Your task to perform on an android device: turn off location history Image 0: 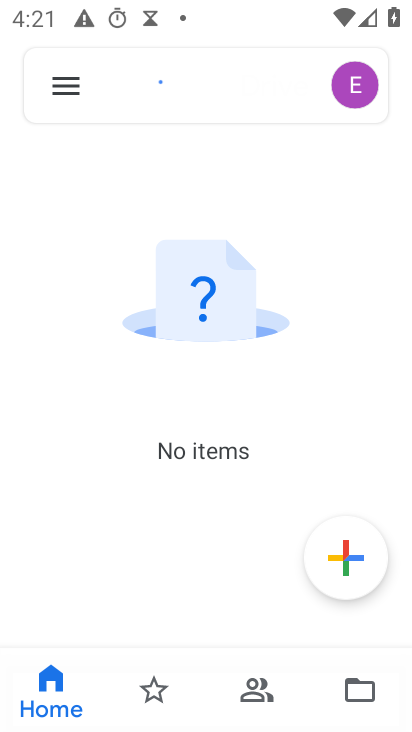
Step 0: press back button
Your task to perform on an android device: turn off location history Image 1: 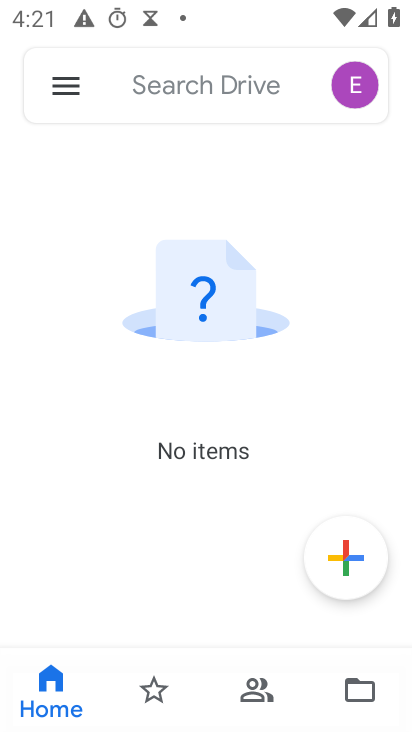
Step 1: press back button
Your task to perform on an android device: turn off location history Image 2: 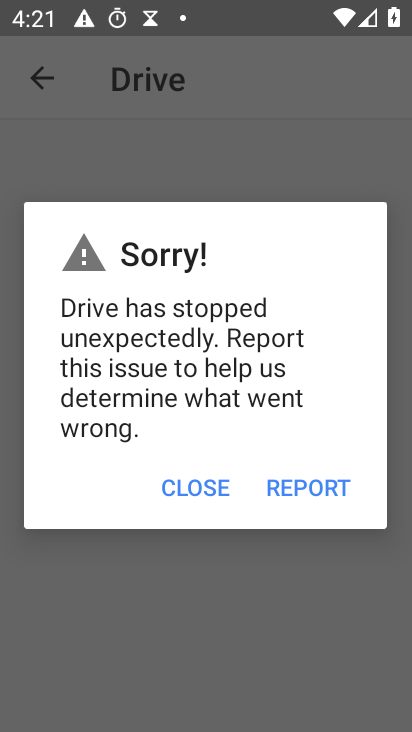
Step 2: click (207, 488)
Your task to perform on an android device: turn off location history Image 3: 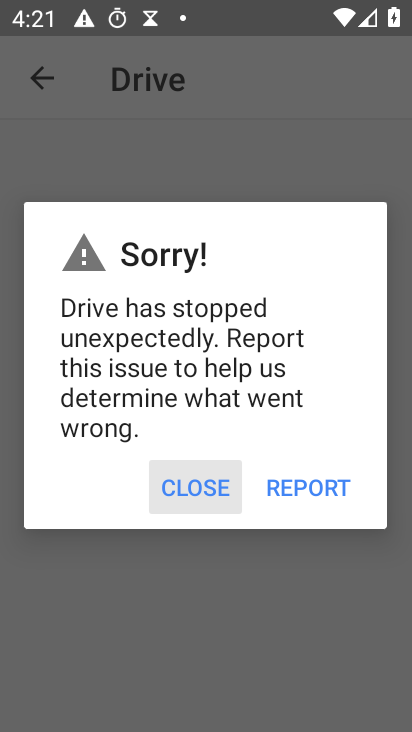
Step 3: click (203, 491)
Your task to perform on an android device: turn off location history Image 4: 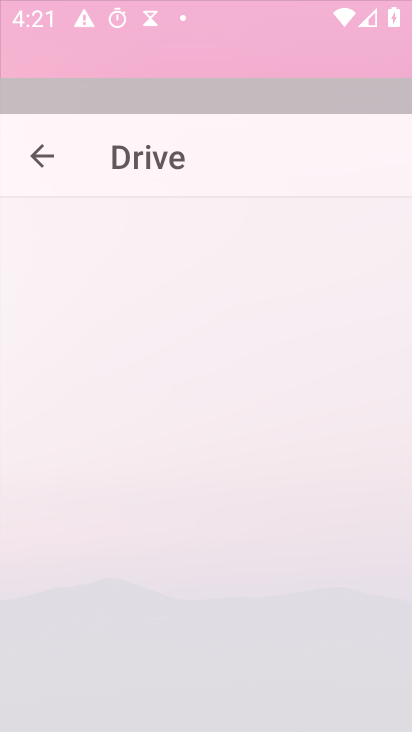
Step 4: click (207, 488)
Your task to perform on an android device: turn off location history Image 5: 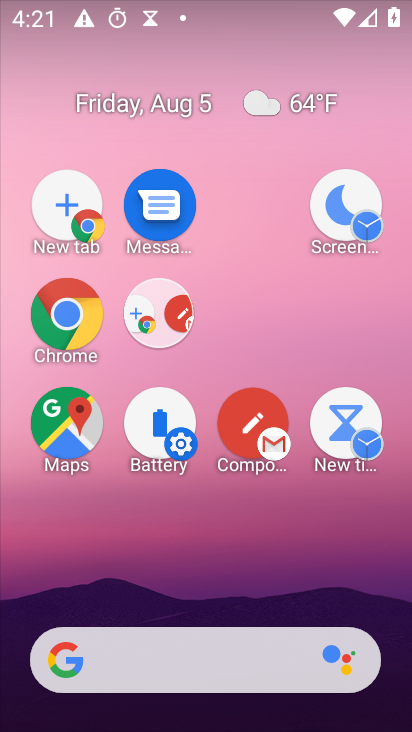
Step 5: drag from (209, 536) to (159, 102)
Your task to perform on an android device: turn off location history Image 6: 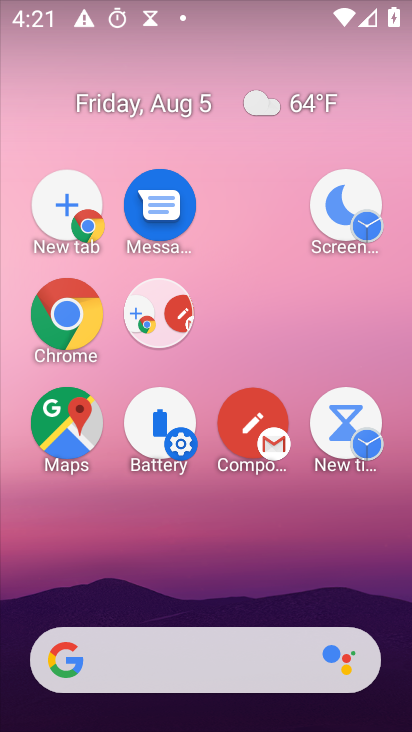
Step 6: drag from (242, 499) to (187, 131)
Your task to perform on an android device: turn off location history Image 7: 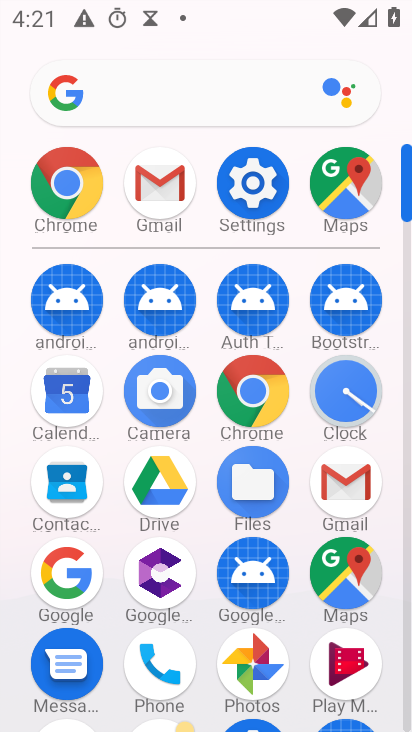
Step 7: click (243, 188)
Your task to perform on an android device: turn off location history Image 8: 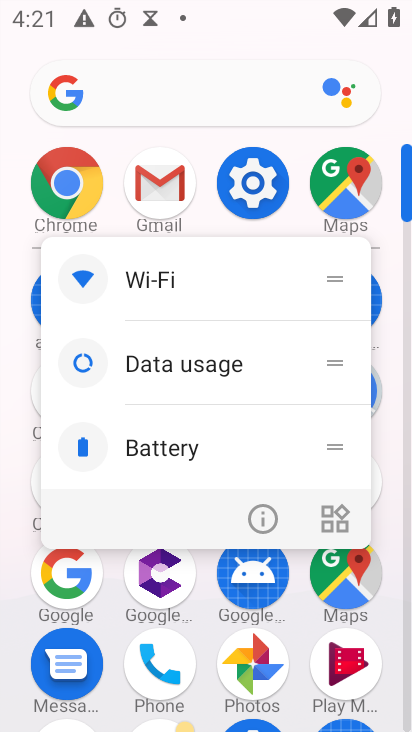
Step 8: click (248, 191)
Your task to perform on an android device: turn off location history Image 9: 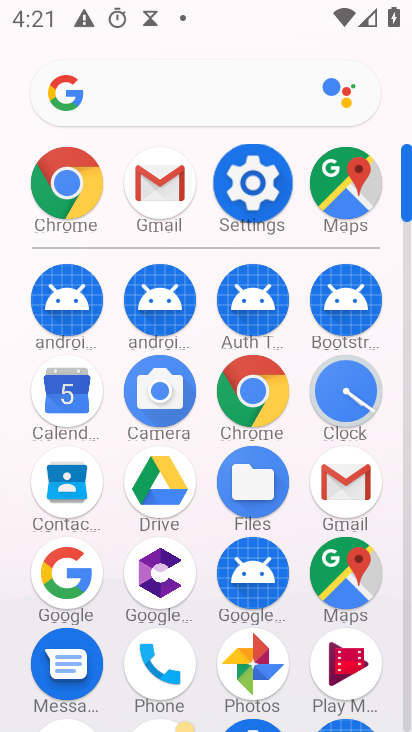
Step 9: click (248, 191)
Your task to perform on an android device: turn off location history Image 10: 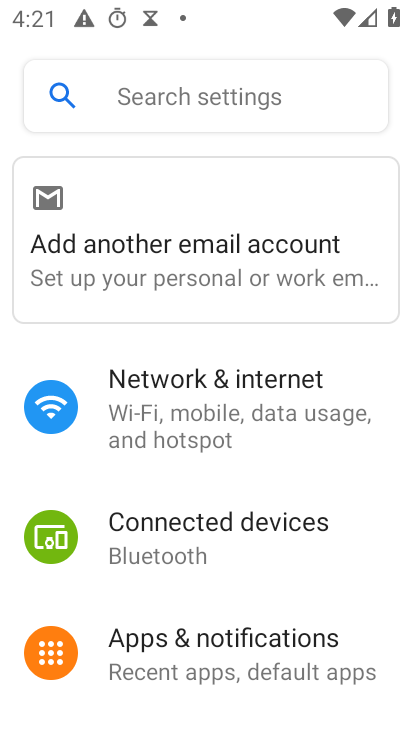
Step 10: drag from (221, 666) to (203, 170)
Your task to perform on an android device: turn off location history Image 11: 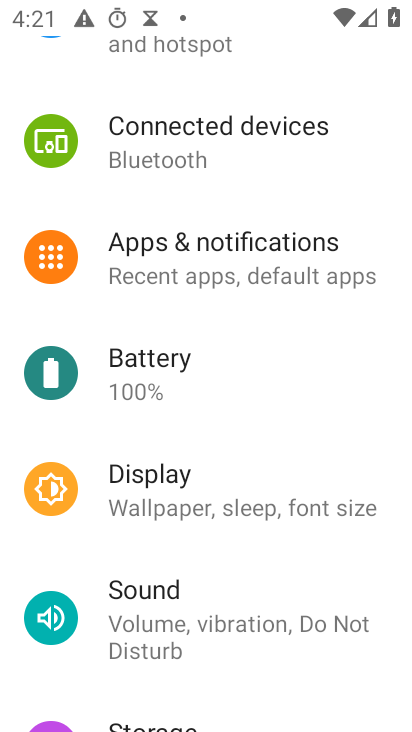
Step 11: drag from (264, 469) to (282, 171)
Your task to perform on an android device: turn off location history Image 12: 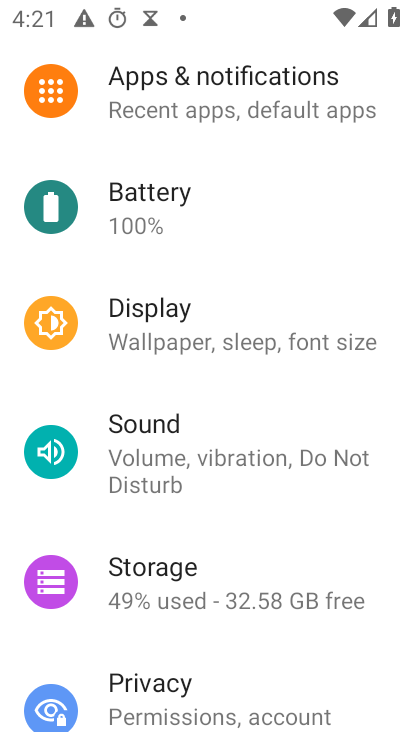
Step 12: drag from (280, 438) to (246, 59)
Your task to perform on an android device: turn off location history Image 13: 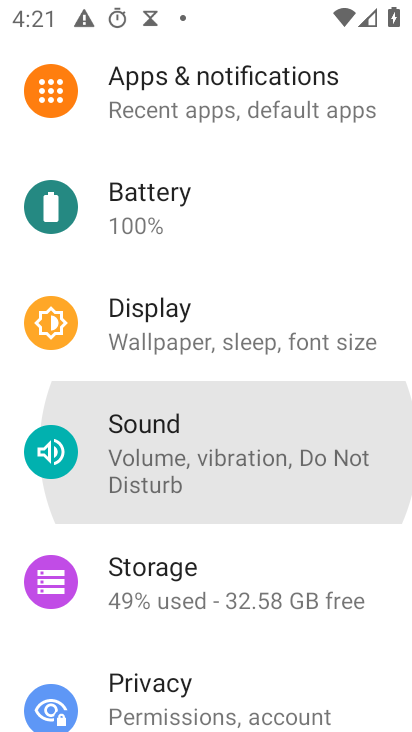
Step 13: drag from (256, 440) to (225, 122)
Your task to perform on an android device: turn off location history Image 14: 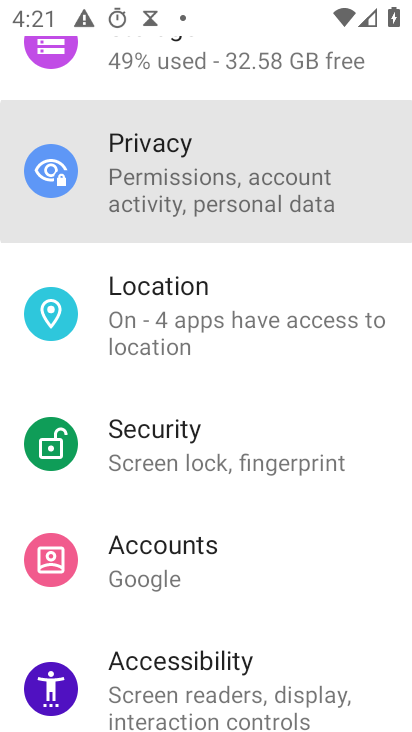
Step 14: drag from (266, 489) to (156, 147)
Your task to perform on an android device: turn off location history Image 15: 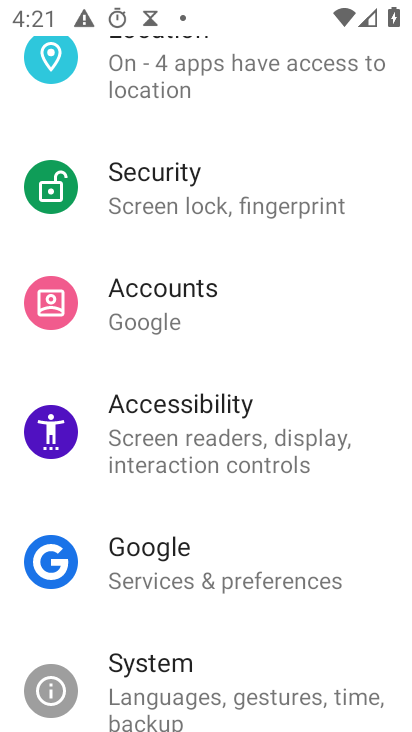
Step 15: drag from (184, 519) to (185, 201)
Your task to perform on an android device: turn off location history Image 16: 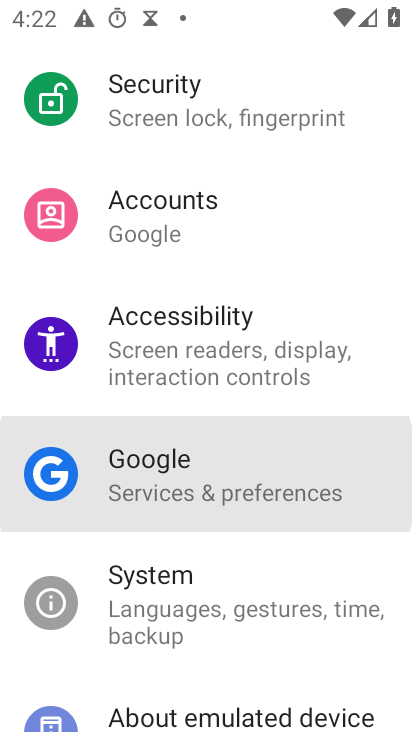
Step 16: drag from (204, 545) to (173, 222)
Your task to perform on an android device: turn off location history Image 17: 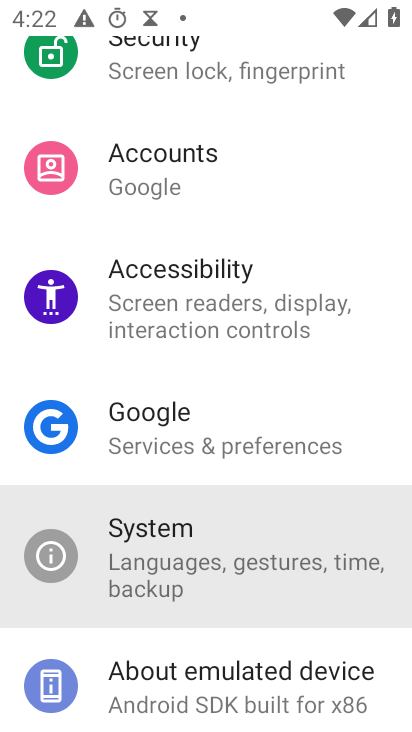
Step 17: drag from (221, 536) to (191, 278)
Your task to perform on an android device: turn off location history Image 18: 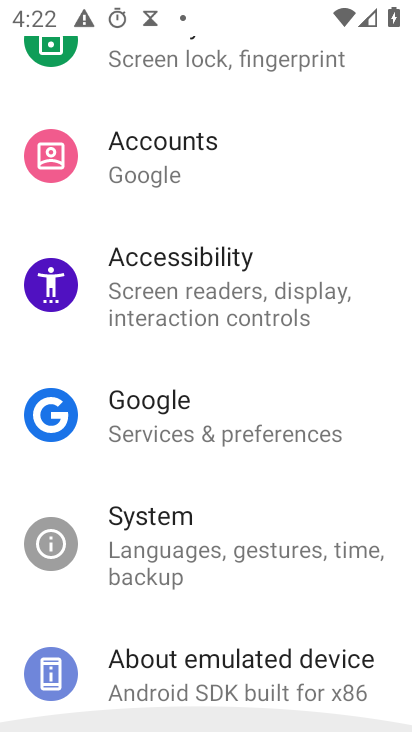
Step 18: drag from (222, 549) to (176, 203)
Your task to perform on an android device: turn off location history Image 19: 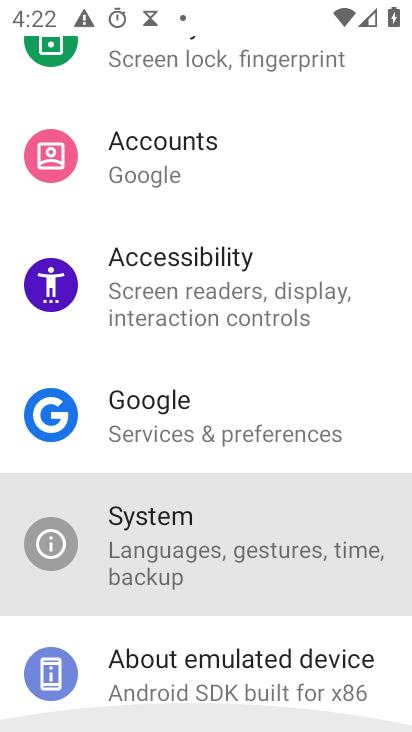
Step 19: drag from (194, 430) to (229, 624)
Your task to perform on an android device: turn off location history Image 20: 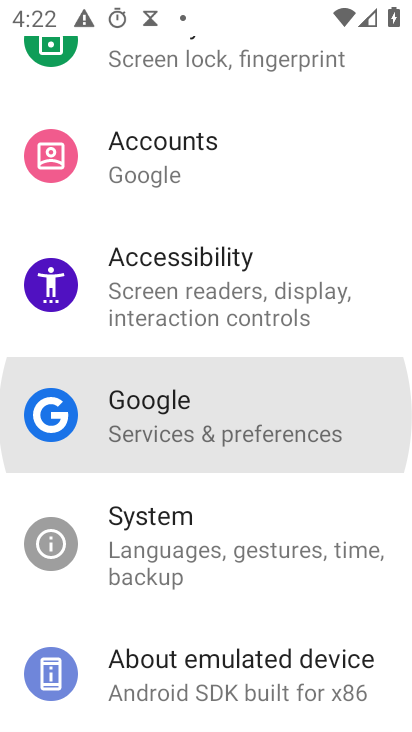
Step 20: drag from (197, 273) to (219, 632)
Your task to perform on an android device: turn off location history Image 21: 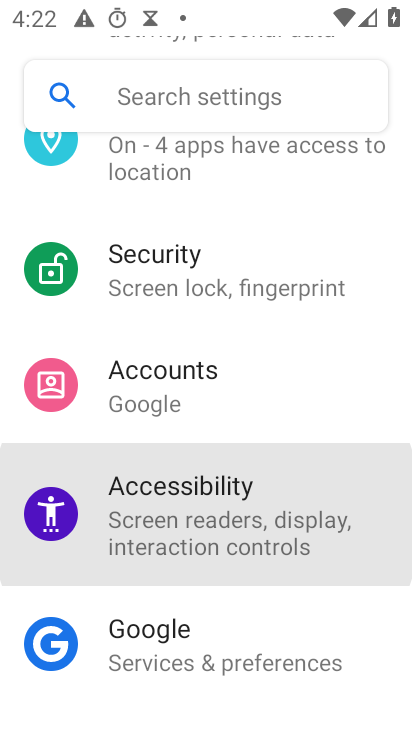
Step 21: drag from (188, 375) to (205, 629)
Your task to perform on an android device: turn off location history Image 22: 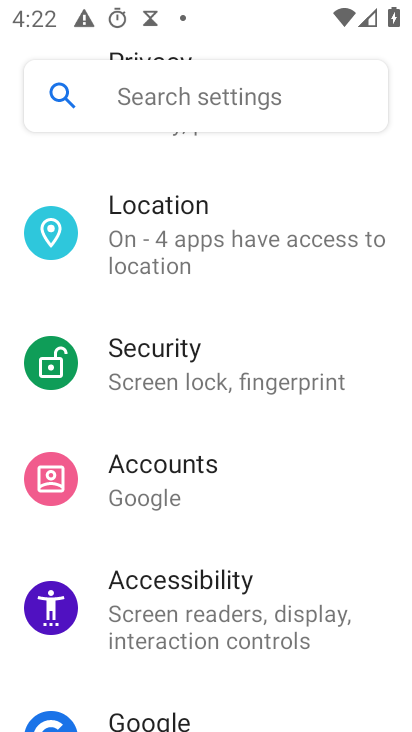
Step 22: drag from (172, 408) to (204, 657)
Your task to perform on an android device: turn off location history Image 23: 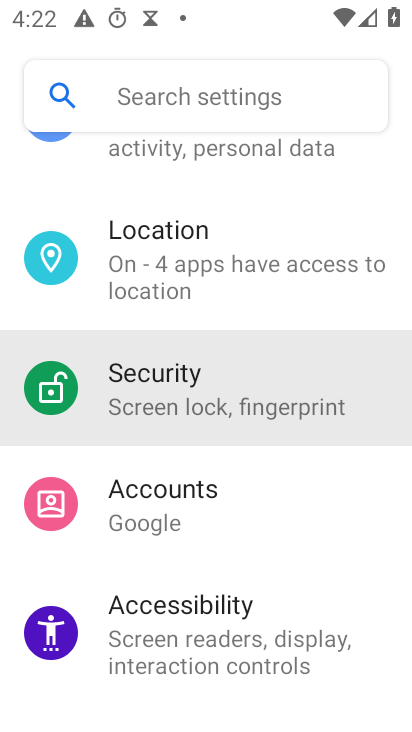
Step 23: drag from (161, 441) to (172, 703)
Your task to perform on an android device: turn off location history Image 24: 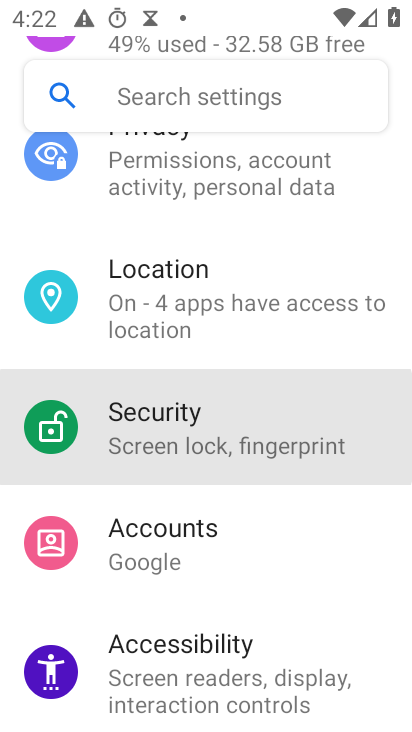
Step 24: drag from (179, 484) to (193, 623)
Your task to perform on an android device: turn off location history Image 25: 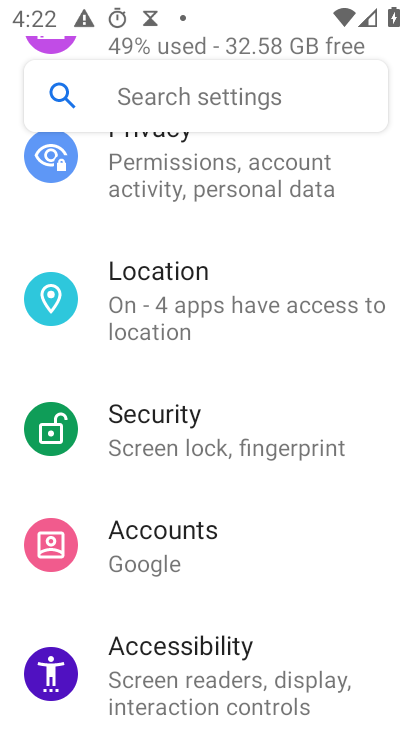
Step 25: click (153, 274)
Your task to perform on an android device: turn off location history Image 26: 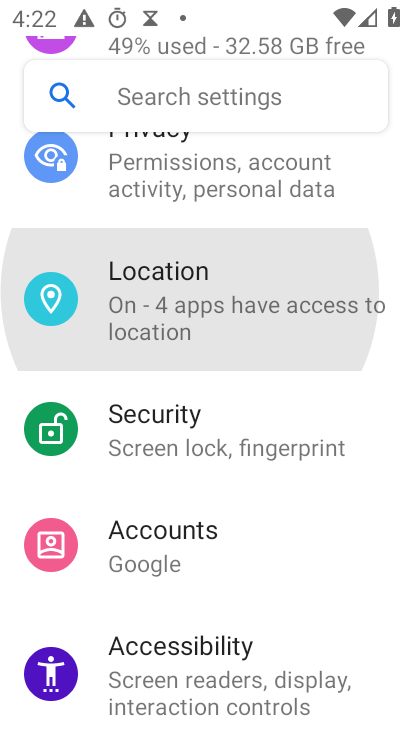
Step 26: click (153, 274)
Your task to perform on an android device: turn off location history Image 27: 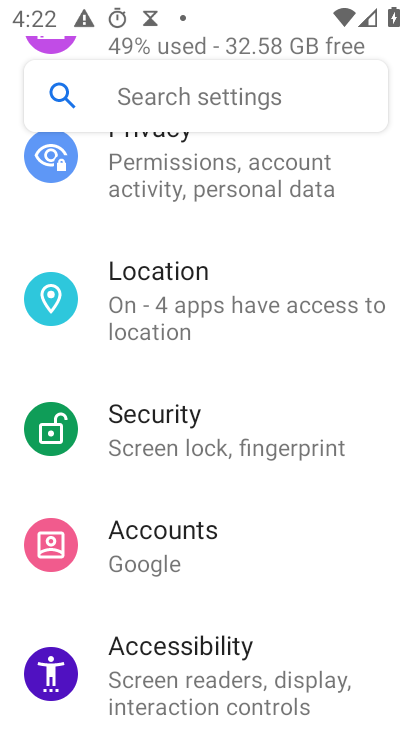
Step 27: click (153, 274)
Your task to perform on an android device: turn off location history Image 28: 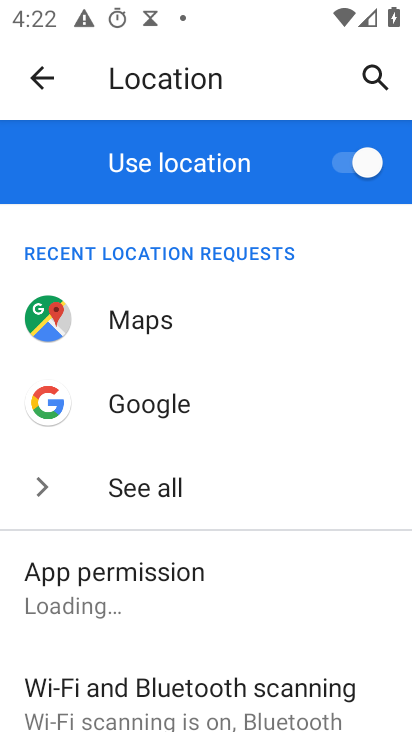
Step 28: drag from (202, 651) to (181, 342)
Your task to perform on an android device: turn off location history Image 29: 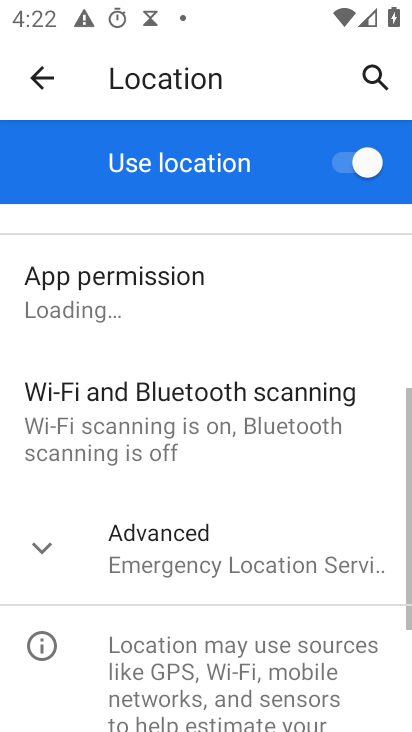
Step 29: drag from (257, 515) to (212, 268)
Your task to perform on an android device: turn off location history Image 30: 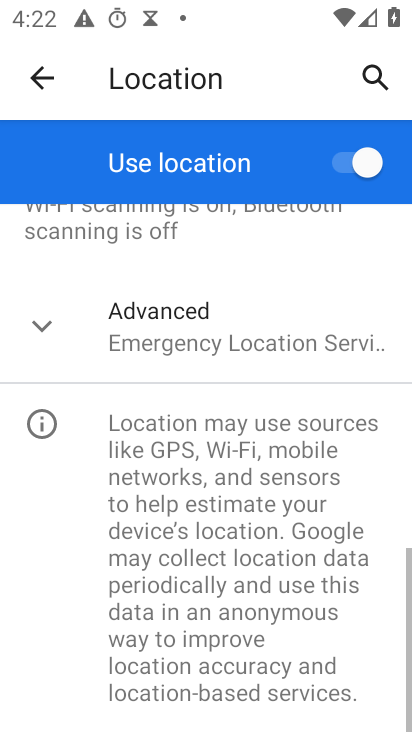
Step 30: drag from (246, 502) to (232, 376)
Your task to perform on an android device: turn off location history Image 31: 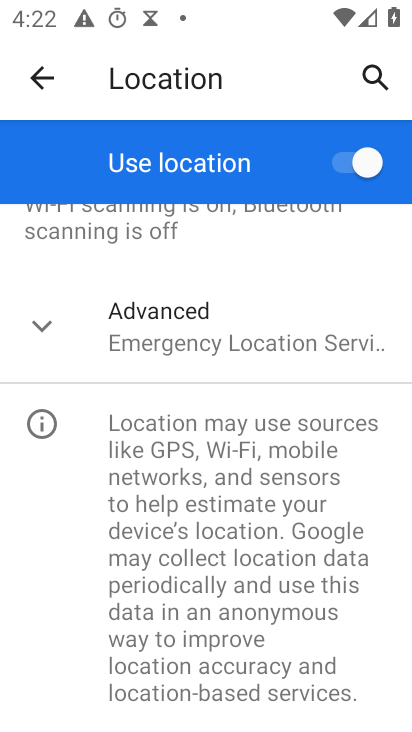
Step 31: drag from (227, 311) to (266, 571)
Your task to perform on an android device: turn off location history Image 32: 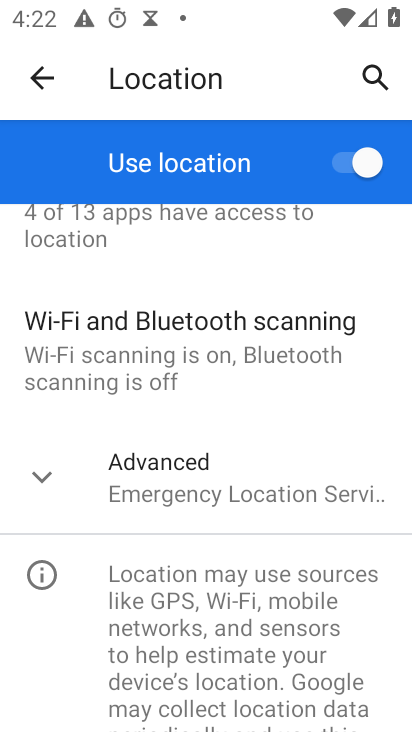
Step 32: click (154, 490)
Your task to perform on an android device: turn off location history Image 33: 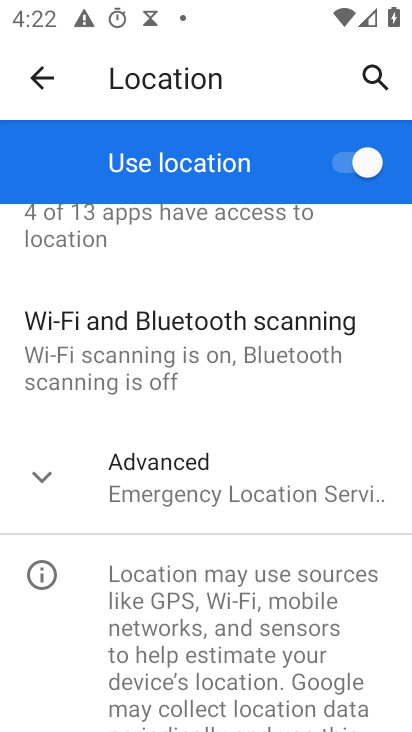
Step 33: click (154, 490)
Your task to perform on an android device: turn off location history Image 34: 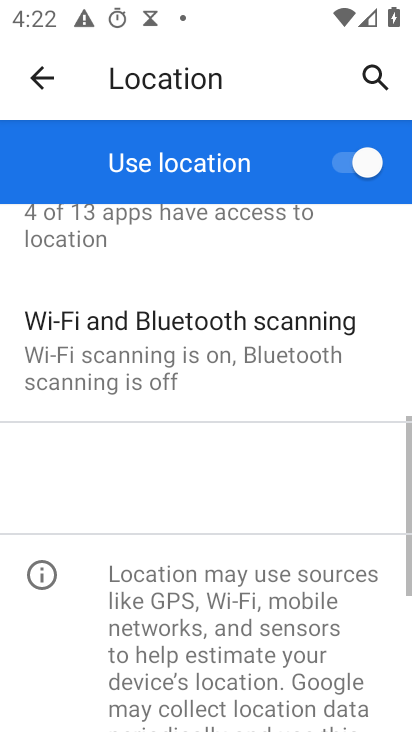
Step 34: click (155, 490)
Your task to perform on an android device: turn off location history Image 35: 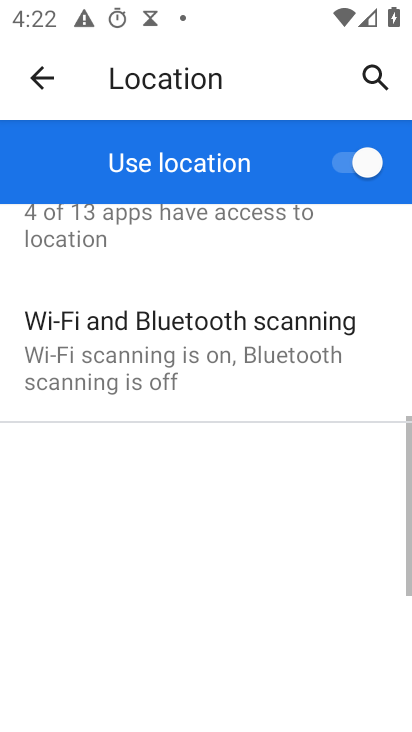
Step 35: click (159, 493)
Your task to perform on an android device: turn off location history Image 36: 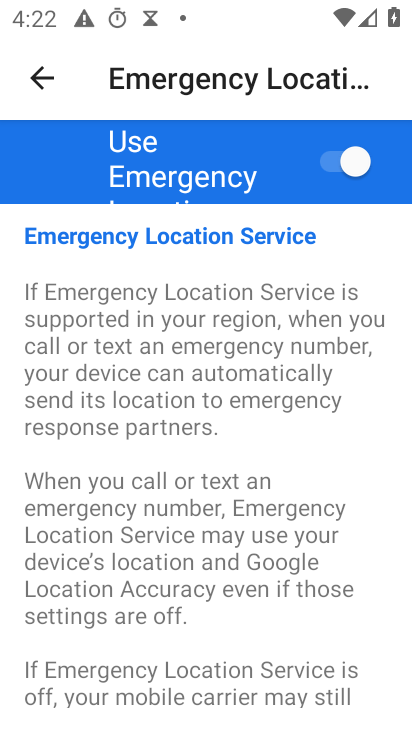
Step 36: click (46, 78)
Your task to perform on an android device: turn off location history Image 37: 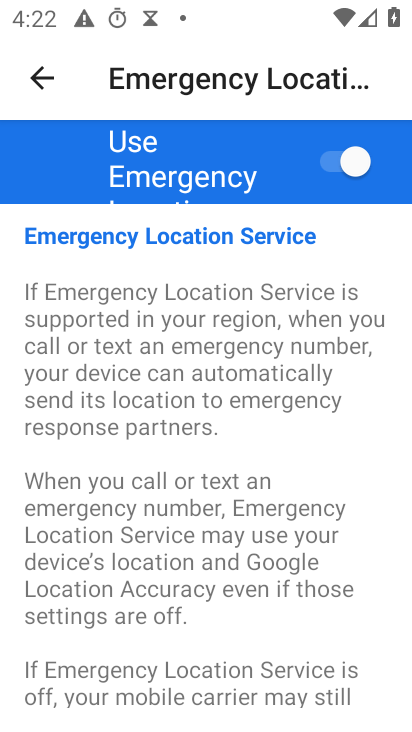
Step 37: click (37, 69)
Your task to perform on an android device: turn off location history Image 38: 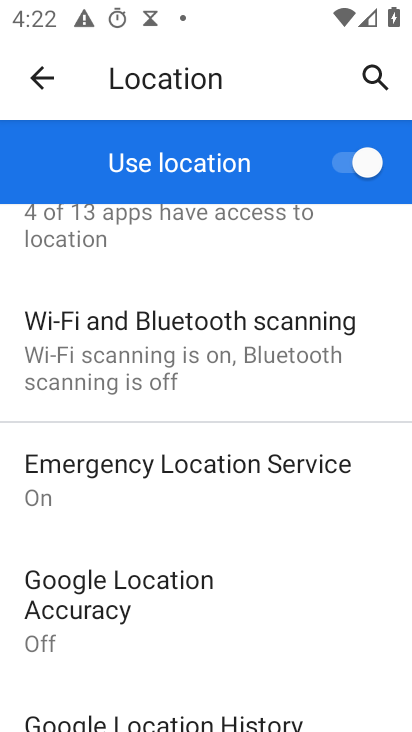
Step 38: drag from (165, 603) to (165, 329)
Your task to perform on an android device: turn off location history Image 39: 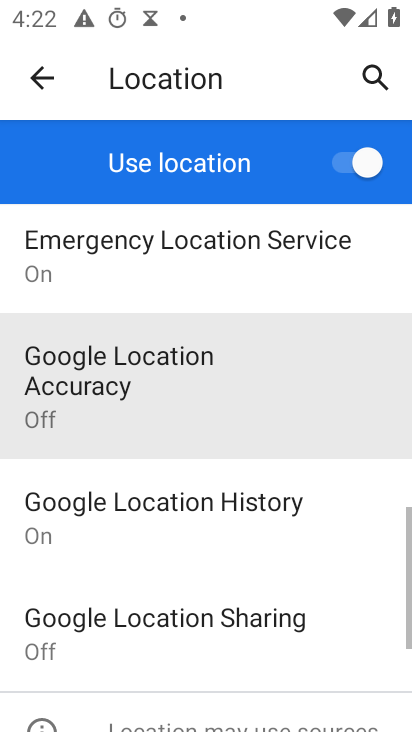
Step 39: click (166, 382)
Your task to perform on an android device: turn off location history Image 40: 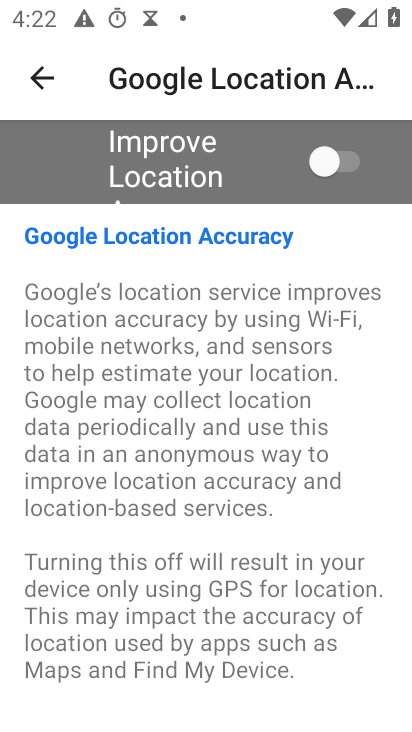
Step 40: click (35, 72)
Your task to perform on an android device: turn off location history Image 41: 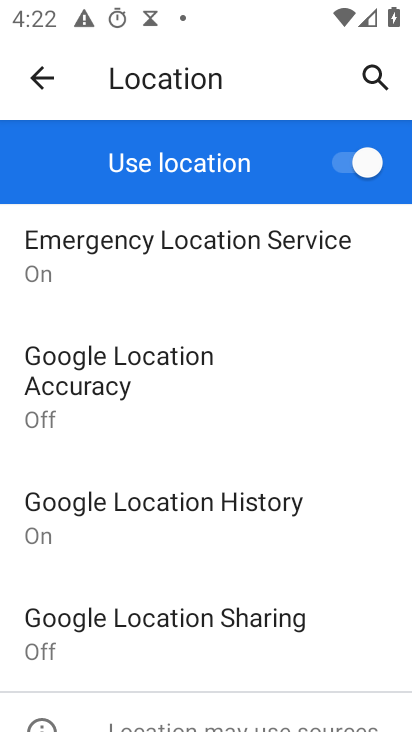
Step 41: click (102, 515)
Your task to perform on an android device: turn off location history Image 42: 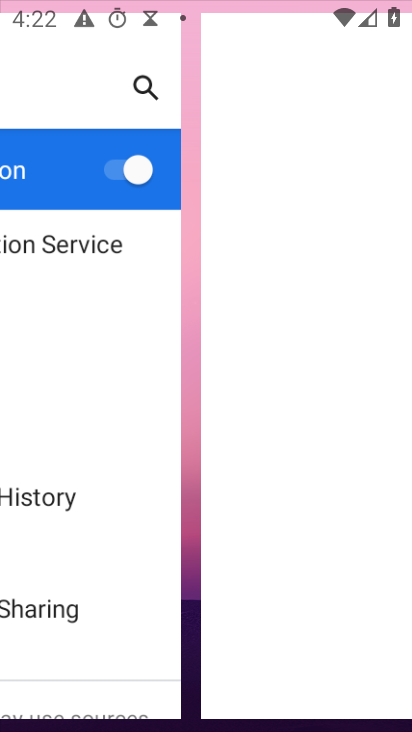
Step 42: click (96, 520)
Your task to perform on an android device: turn off location history Image 43: 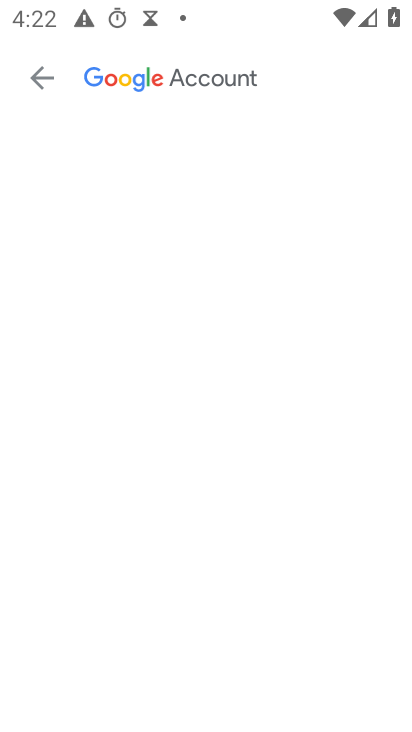
Step 43: task complete